Your task to perform on an android device: set default search engine in the chrome app Image 0: 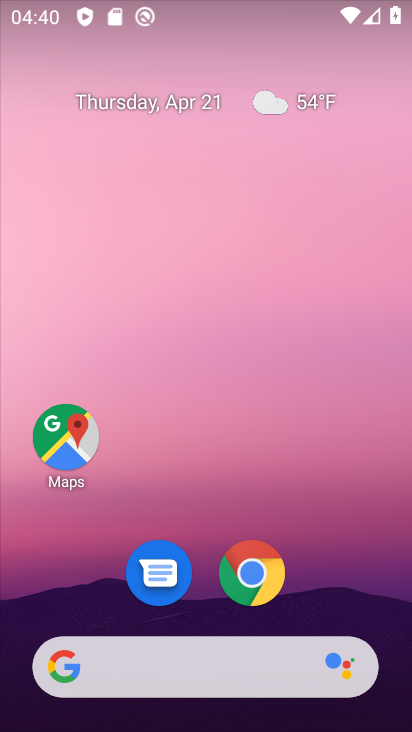
Step 0: click (245, 572)
Your task to perform on an android device: set default search engine in the chrome app Image 1: 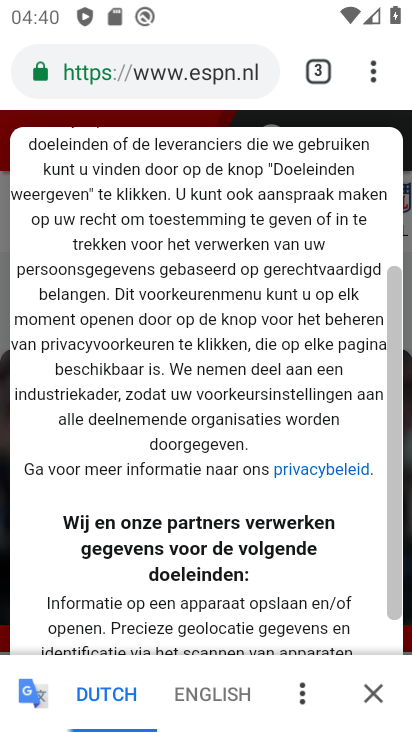
Step 1: click (372, 76)
Your task to perform on an android device: set default search engine in the chrome app Image 2: 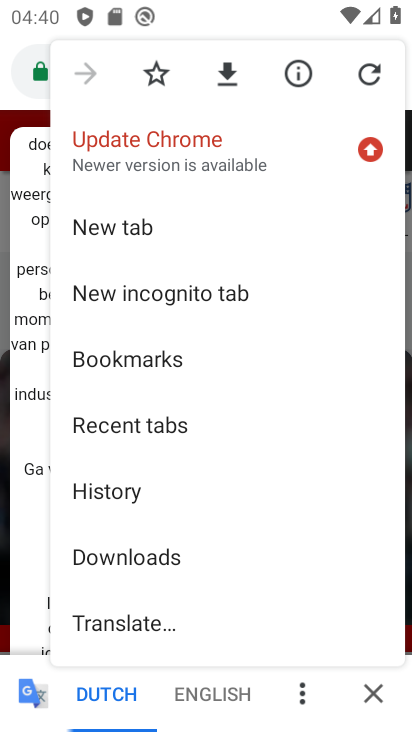
Step 2: drag from (266, 586) to (277, 351)
Your task to perform on an android device: set default search engine in the chrome app Image 3: 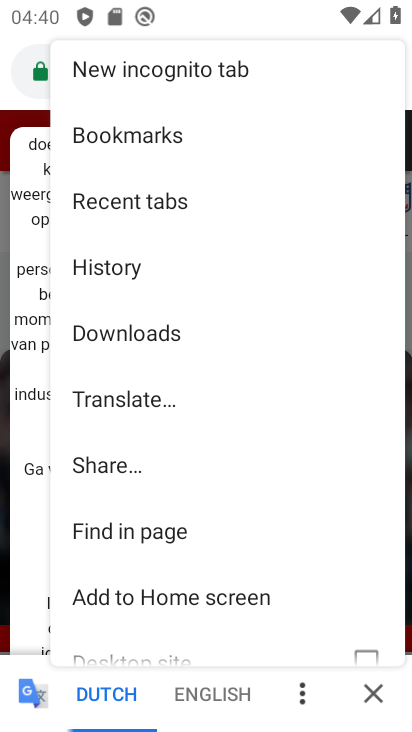
Step 3: drag from (270, 560) to (261, 340)
Your task to perform on an android device: set default search engine in the chrome app Image 4: 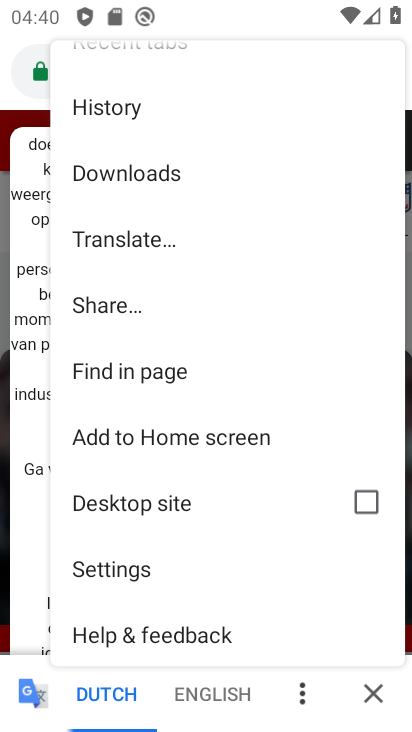
Step 4: click (114, 566)
Your task to perform on an android device: set default search engine in the chrome app Image 5: 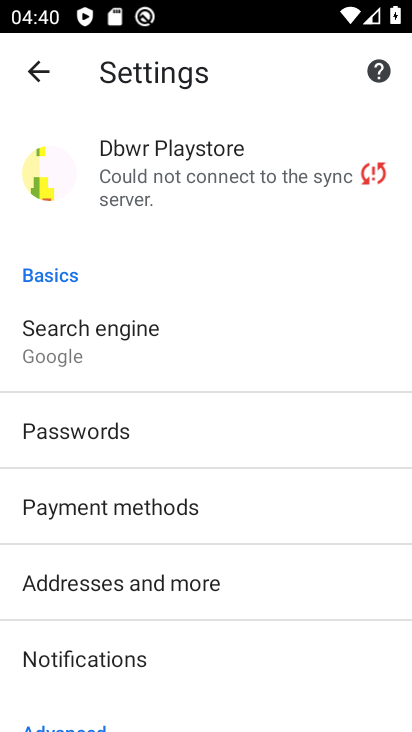
Step 5: click (59, 329)
Your task to perform on an android device: set default search engine in the chrome app Image 6: 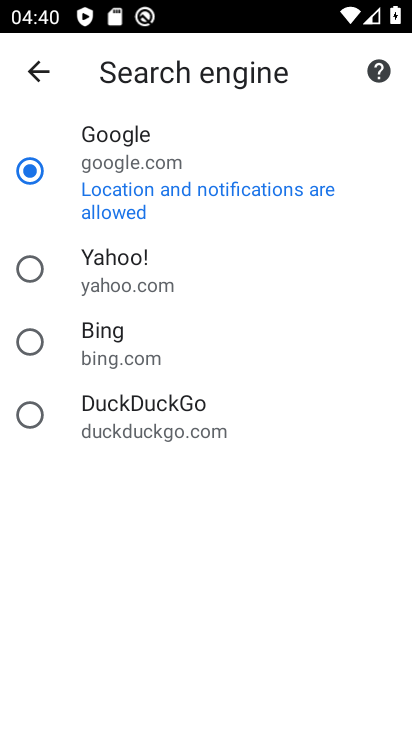
Step 6: click (32, 268)
Your task to perform on an android device: set default search engine in the chrome app Image 7: 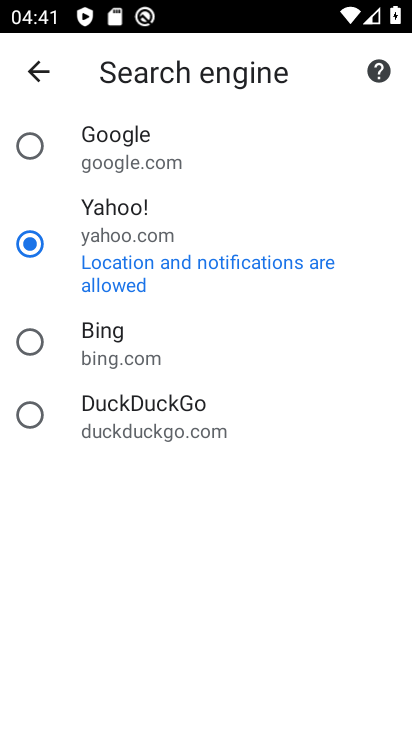
Step 7: task complete